Your task to perform on an android device: Show me the alarms in the clock app Image 0: 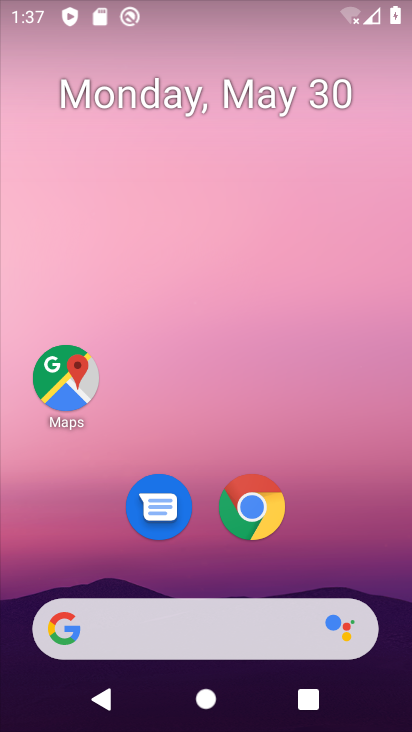
Step 0: drag from (382, 643) to (335, 84)
Your task to perform on an android device: Show me the alarms in the clock app Image 1: 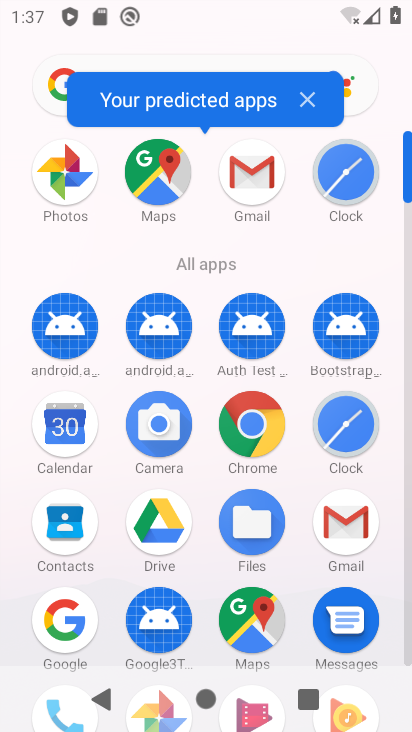
Step 1: click (336, 431)
Your task to perform on an android device: Show me the alarms in the clock app Image 2: 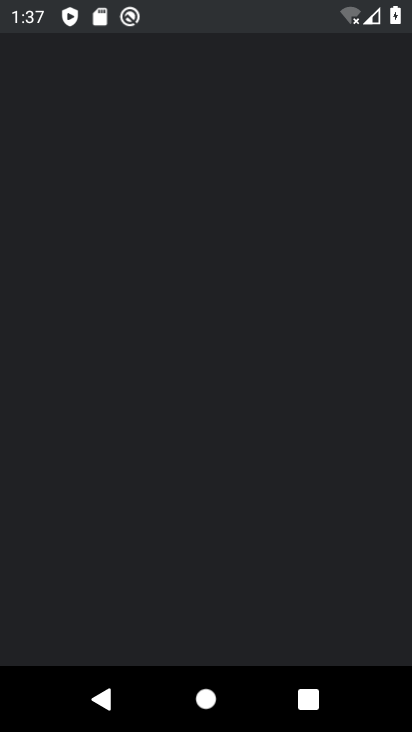
Step 2: click (336, 431)
Your task to perform on an android device: Show me the alarms in the clock app Image 3: 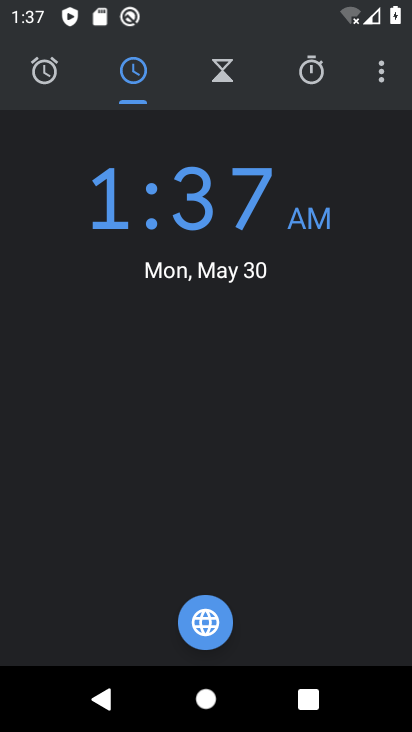
Step 3: click (41, 82)
Your task to perform on an android device: Show me the alarms in the clock app Image 4: 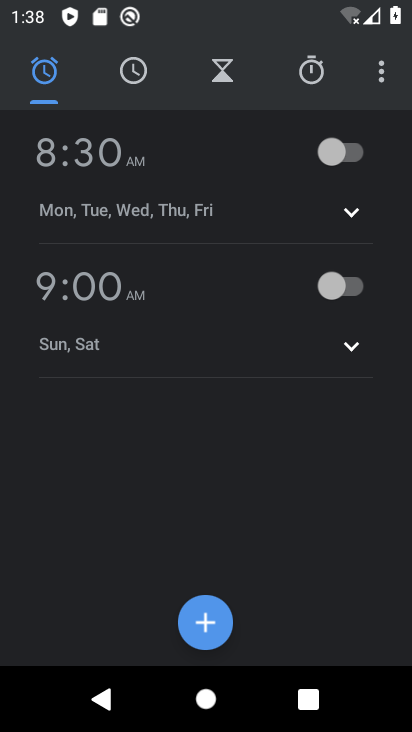
Step 4: task complete